Your task to perform on an android device: Open Google Chrome and click the shortcut for Amazon.com Image 0: 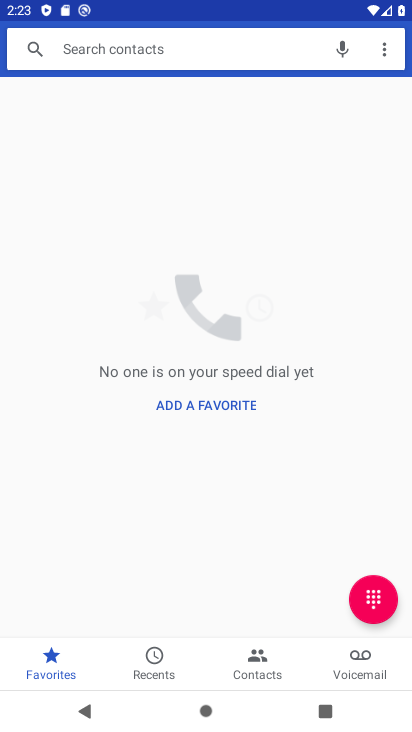
Step 0: press home button
Your task to perform on an android device: Open Google Chrome and click the shortcut for Amazon.com Image 1: 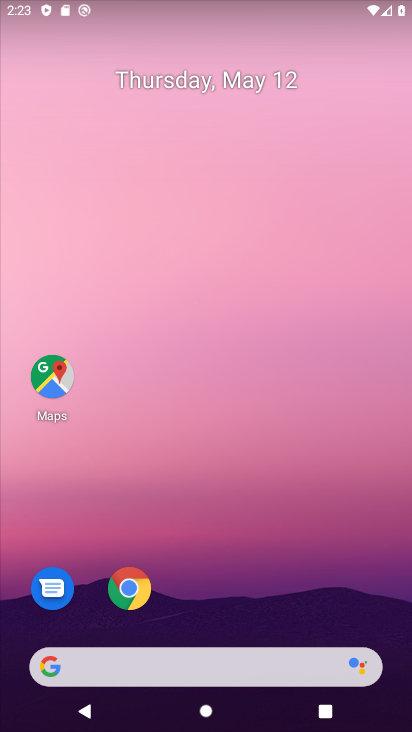
Step 1: drag from (248, 582) to (151, 1)
Your task to perform on an android device: Open Google Chrome and click the shortcut for Amazon.com Image 2: 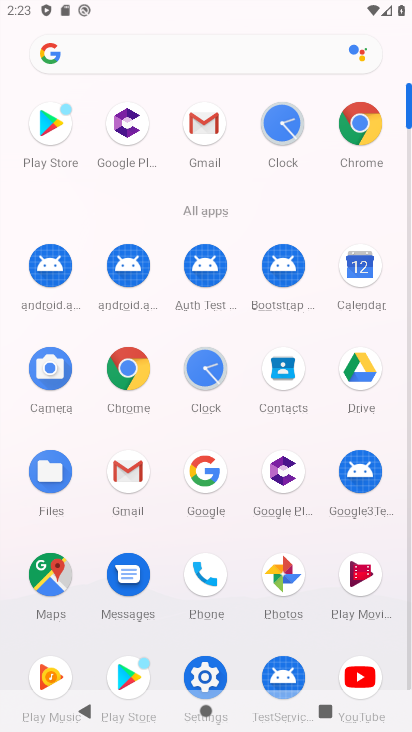
Step 2: click (354, 128)
Your task to perform on an android device: Open Google Chrome and click the shortcut for Amazon.com Image 3: 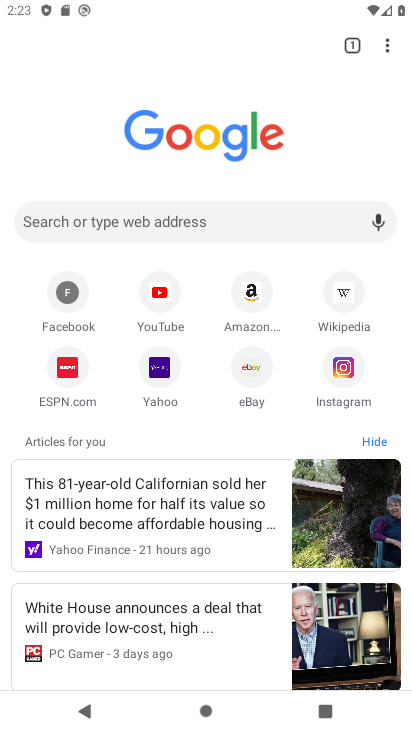
Step 3: click (246, 309)
Your task to perform on an android device: Open Google Chrome and click the shortcut for Amazon.com Image 4: 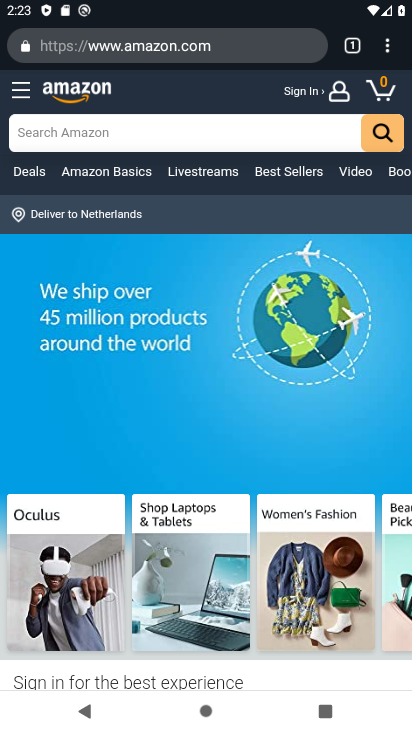
Step 4: drag from (391, 48) to (237, 480)
Your task to perform on an android device: Open Google Chrome and click the shortcut for Amazon.com Image 5: 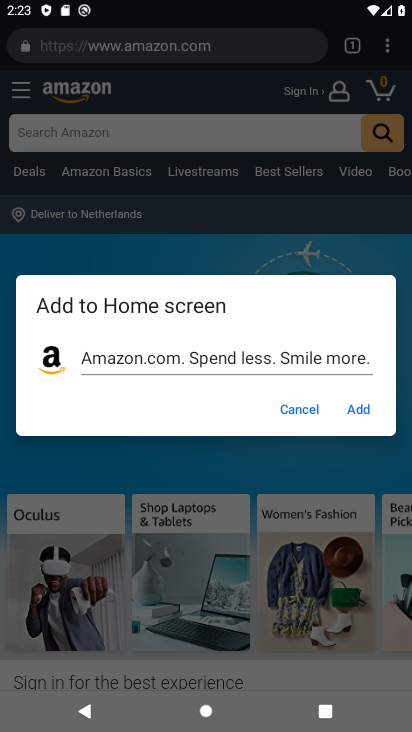
Step 5: click (353, 402)
Your task to perform on an android device: Open Google Chrome and click the shortcut for Amazon.com Image 6: 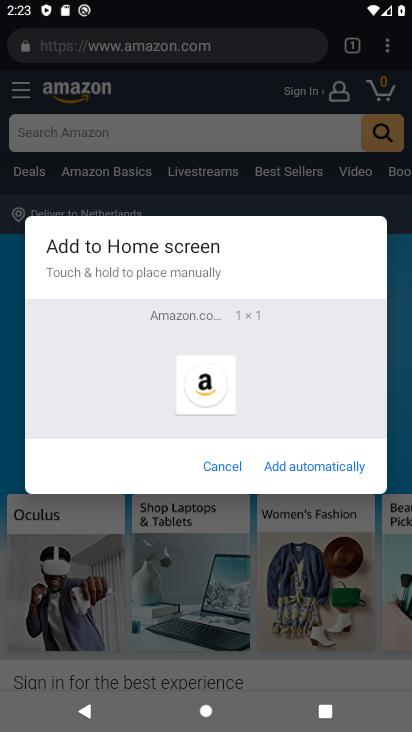
Step 6: click (312, 467)
Your task to perform on an android device: Open Google Chrome and click the shortcut for Amazon.com Image 7: 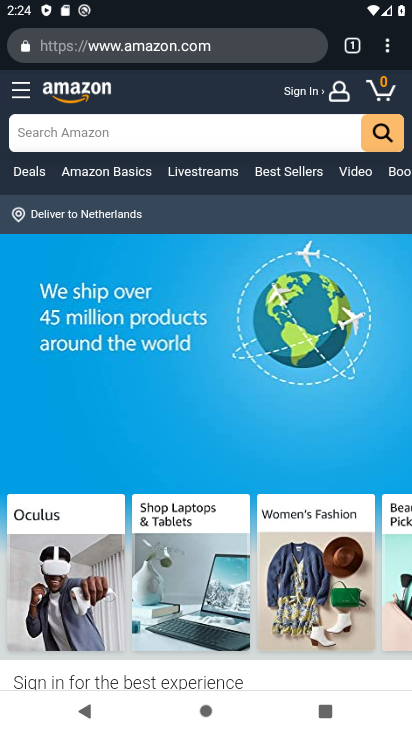
Step 7: task complete